Your task to perform on an android device: turn off data saver in the chrome app Image 0: 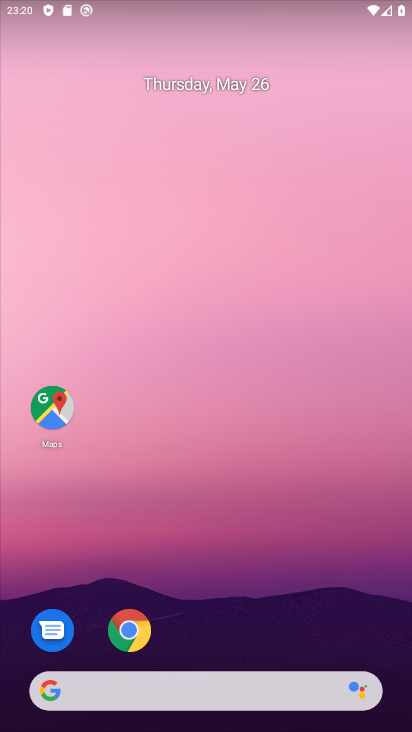
Step 0: click (131, 630)
Your task to perform on an android device: turn off data saver in the chrome app Image 1: 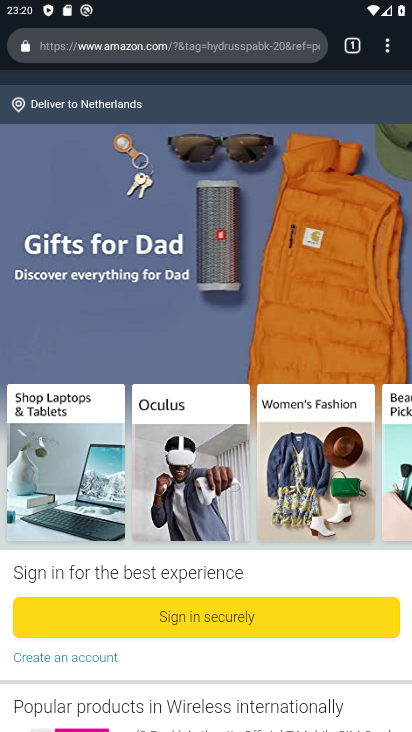
Step 1: click (389, 47)
Your task to perform on an android device: turn off data saver in the chrome app Image 2: 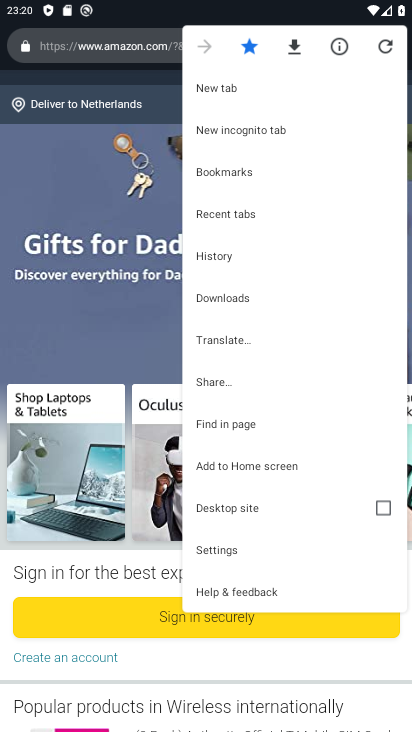
Step 2: click (232, 551)
Your task to perform on an android device: turn off data saver in the chrome app Image 3: 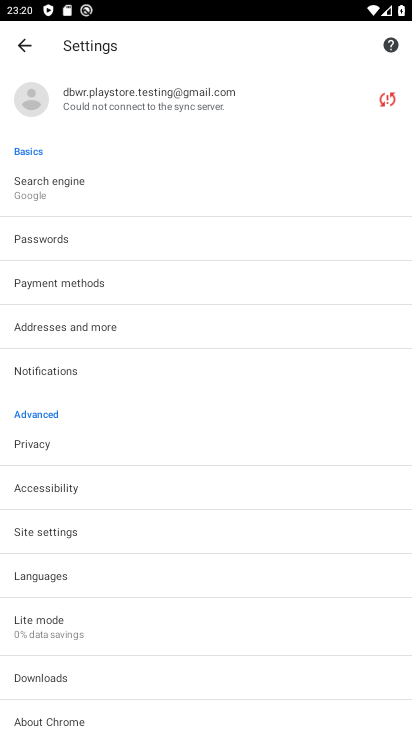
Step 3: click (83, 625)
Your task to perform on an android device: turn off data saver in the chrome app Image 4: 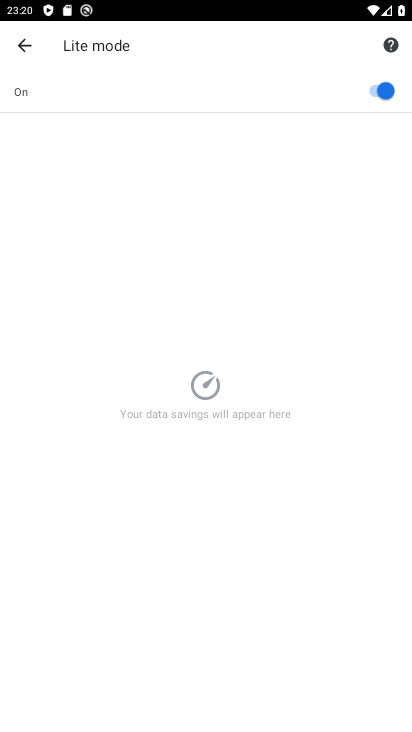
Step 4: click (390, 99)
Your task to perform on an android device: turn off data saver in the chrome app Image 5: 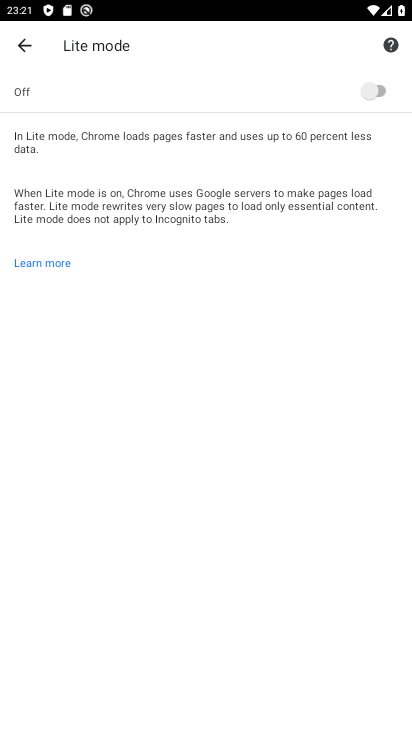
Step 5: task complete